Your task to perform on an android device: turn off sleep mode Image 0: 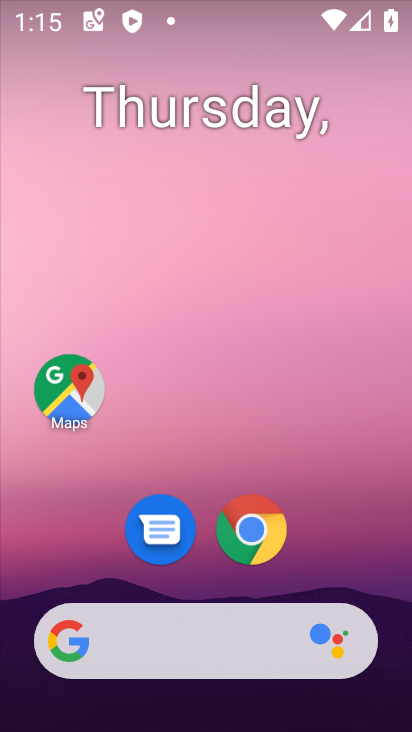
Step 0: drag from (359, 557) to (363, 130)
Your task to perform on an android device: turn off sleep mode Image 1: 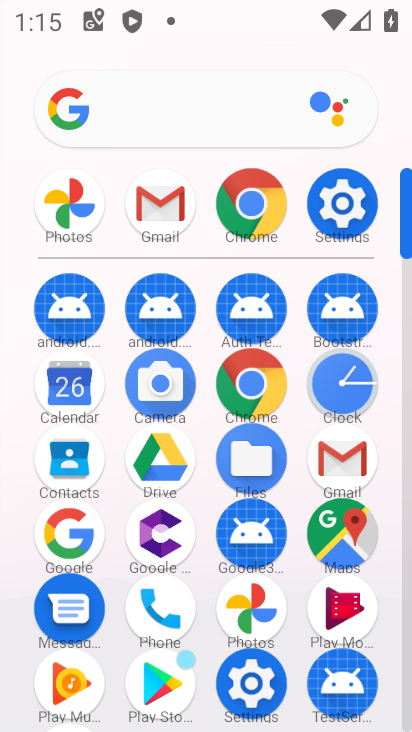
Step 1: click (345, 202)
Your task to perform on an android device: turn off sleep mode Image 2: 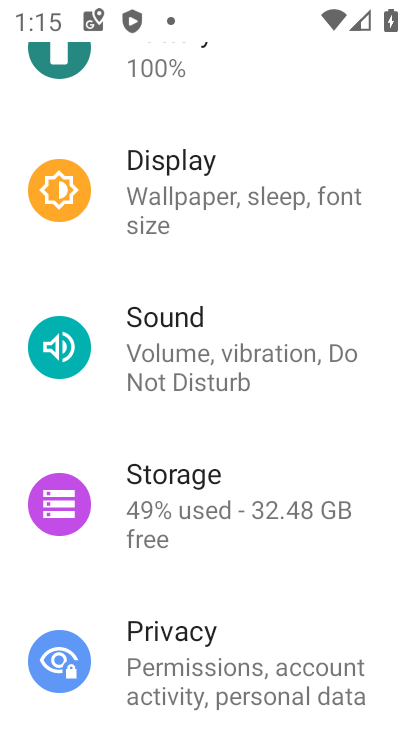
Step 2: drag from (273, 162) to (291, 586)
Your task to perform on an android device: turn off sleep mode Image 3: 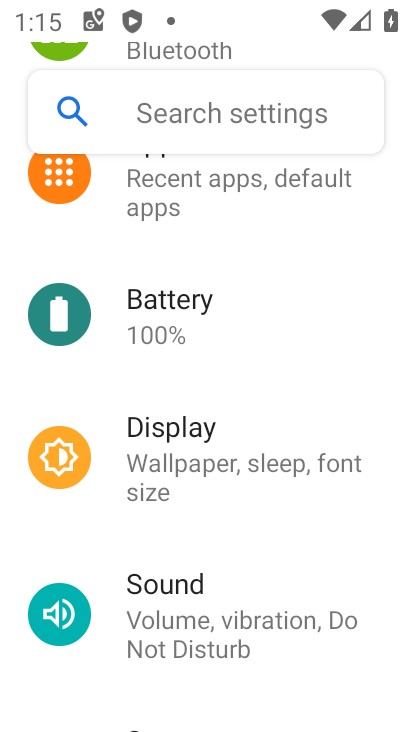
Step 3: click (242, 105)
Your task to perform on an android device: turn off sleep mode Image 4: 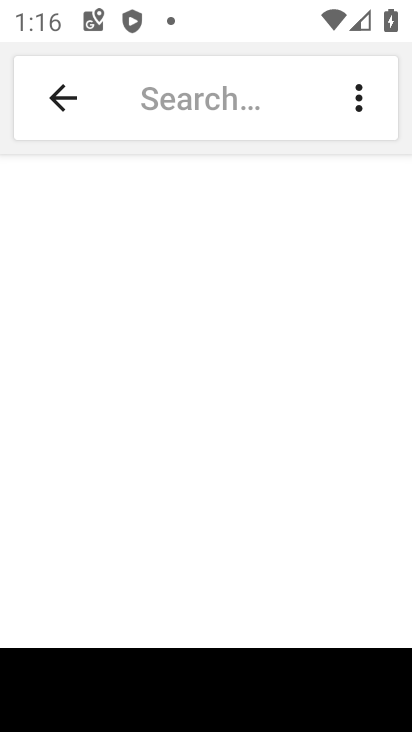
Step 4: type "sleep mode"
Your task to perform on an android device: turn off sleep mode Image 5: 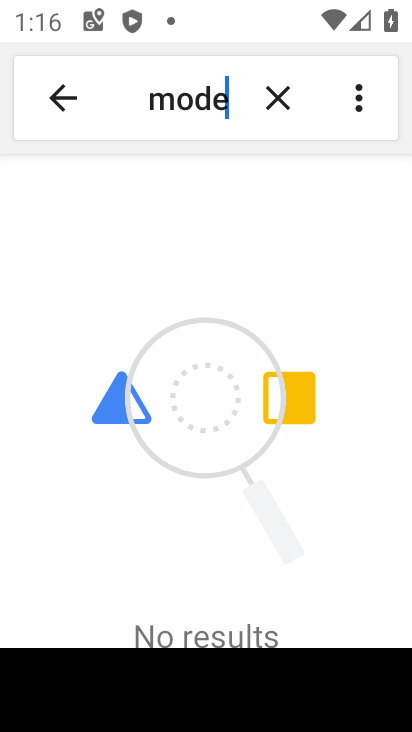
Step 5: task complete